Your task to perform on an android device: uninstall "Cash App" Image 0: 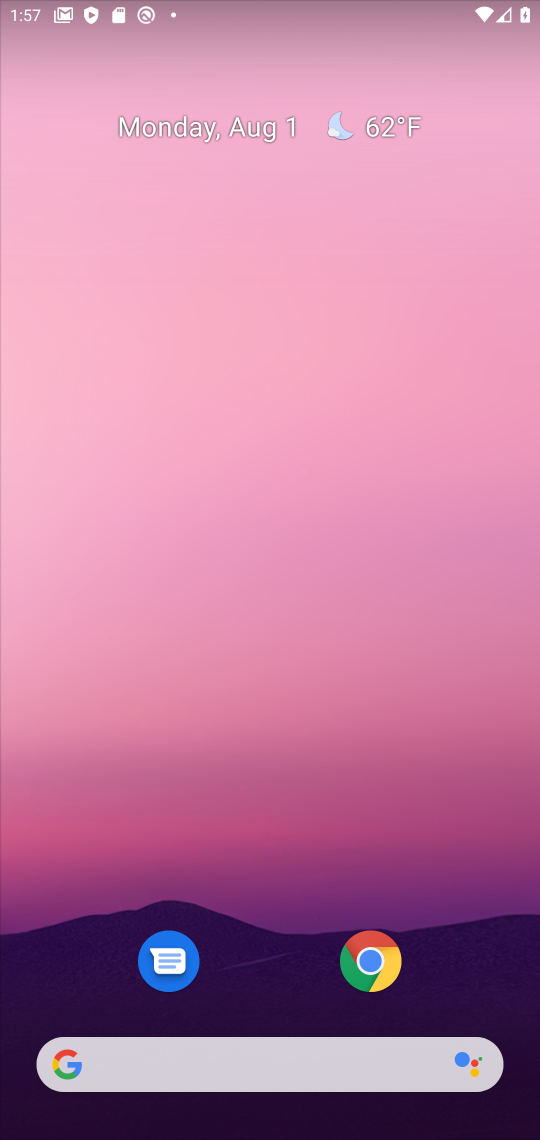
Step 0: drag from (284, 928) to (329, 93)
Your task to perform on an android device: uninstall "Cash App" Image 1: 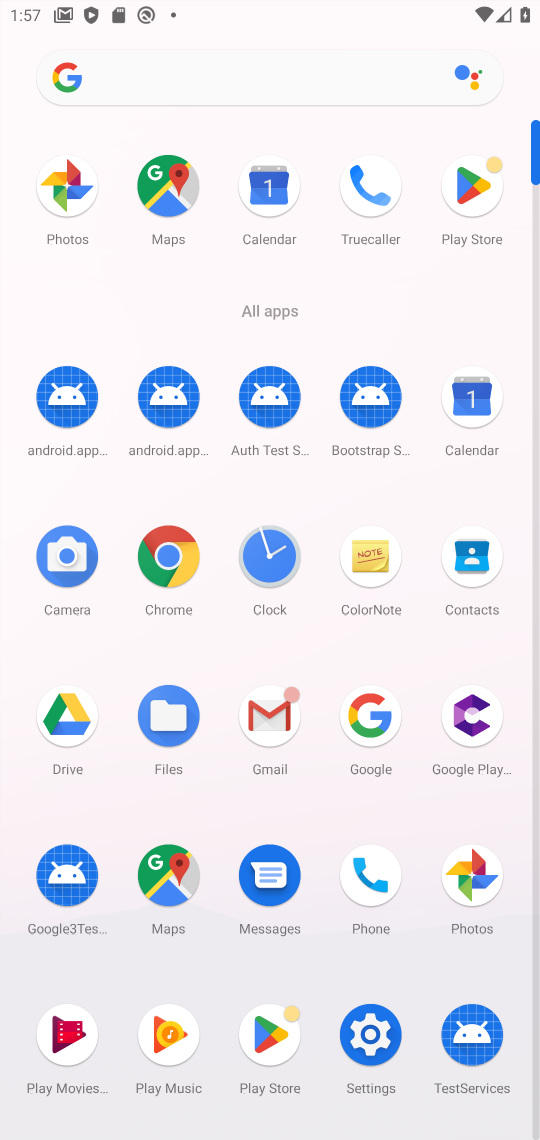
Step 1: click (472, 176)
Your task to perform on an android device: uninstall "Cash App" Image 2: 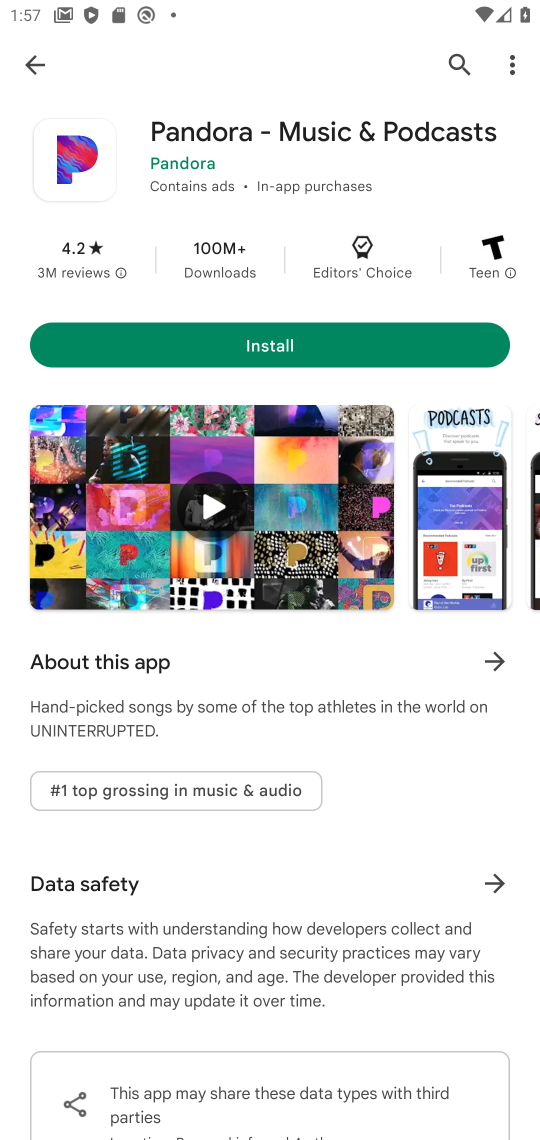
Step 2: click (458, 62)
Your task to perform on an android device: uninstall "Cash App" Image 3: 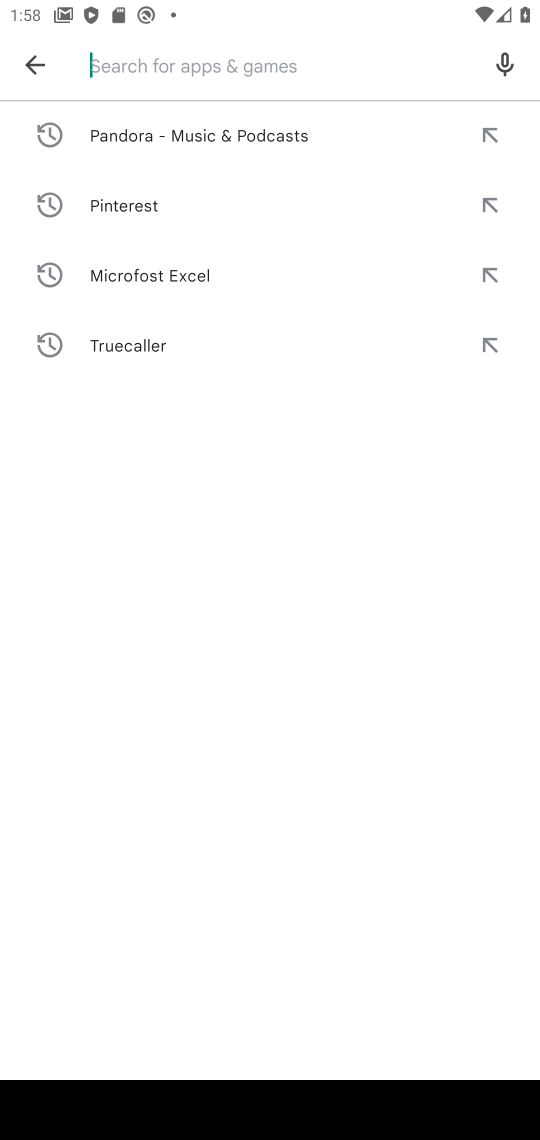
Step 3: type "Cash  App"
Your task to perform on an android device: uninstall "Cash App" Image 4: 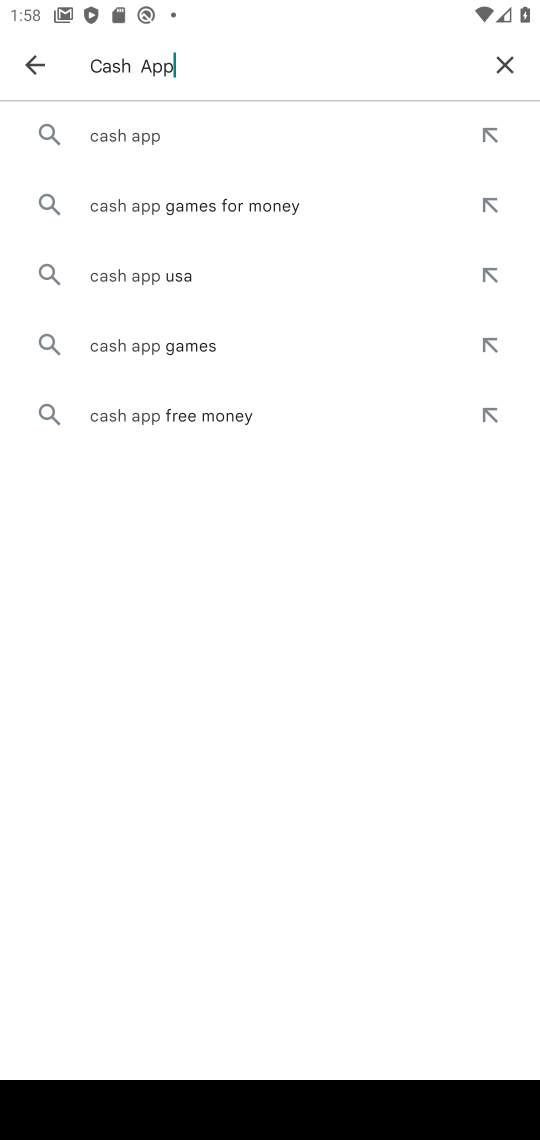
Step 4: press enter
Your task to perform on an android device: uninstall "Cash App" Image 5: 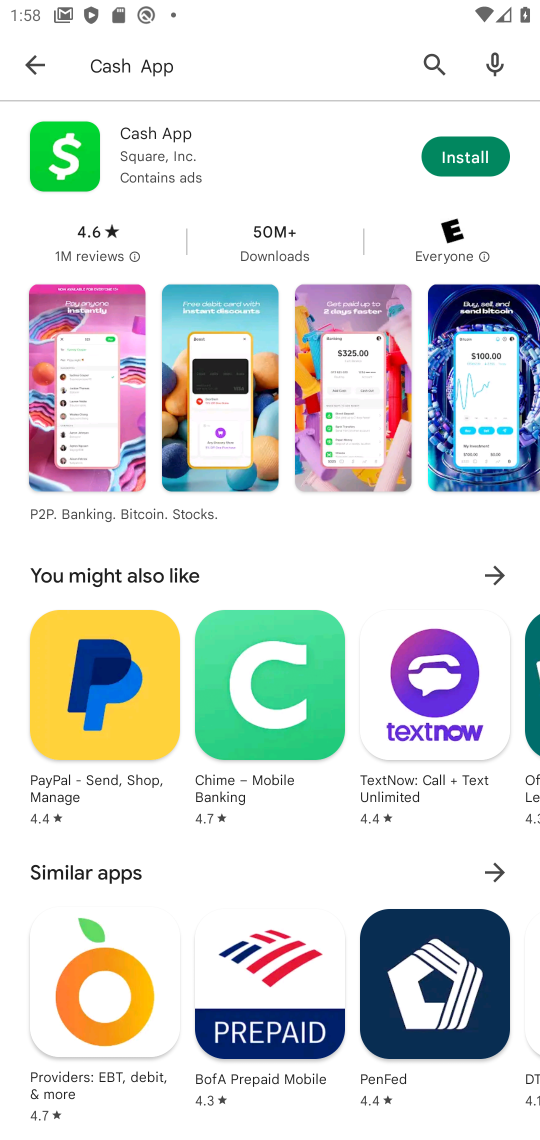
Step 5: click (214, 171)
Your task to perform on an android device: uninstall "Cash App" Image 6: 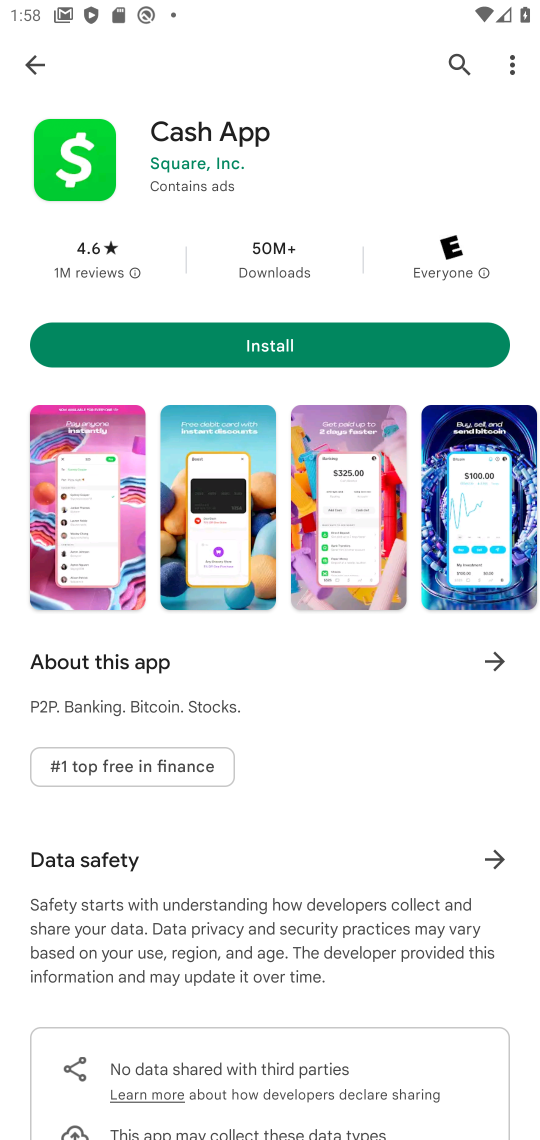
Step 6: task complete